Your task to perform on an android device: stop showing notifications on the lock screen Image 0: 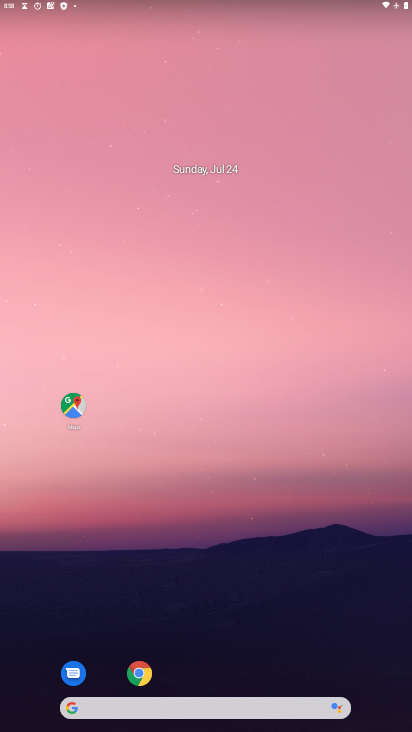
Step 0: drag from (204, 652) to (287, 303)
Your task to perform on an android device: stop showing notifications on the lock screen Image 1: 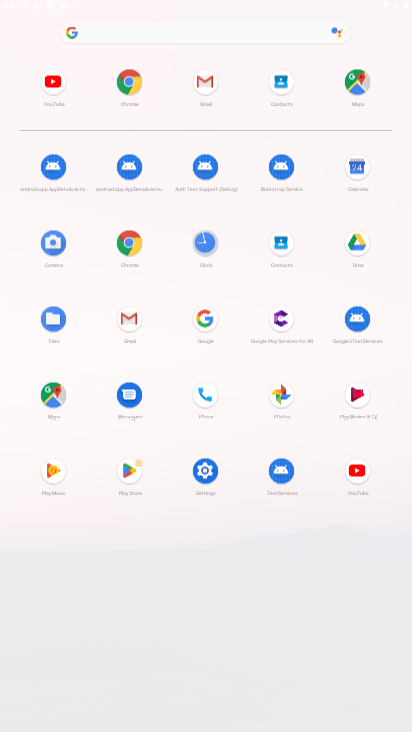
Step 1: drag from (195, 678) to (266, 86)
Your task to perform on an android device: stop showing notifications on the lock screen Image 2: 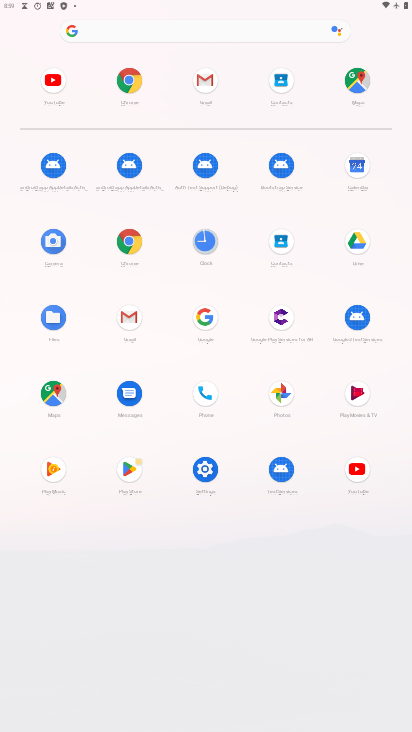
Step 2: click (201, 469)
Your task to perform on an android device: stop showing notifications on the lock screen Image 3: 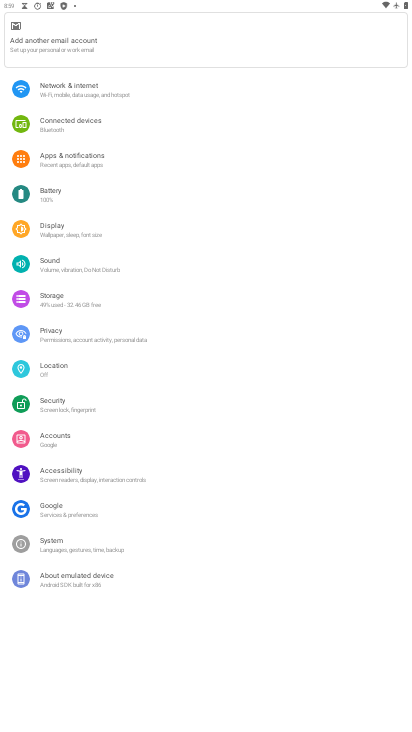
Step 3: click (69, 166)
Your task to perform on an android device: stop showing notifications on the lock screen Image 4: 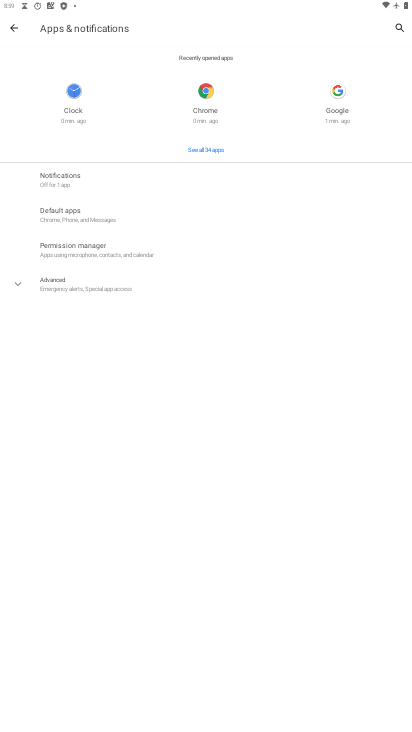
Step 4: click (92, 185)
Your task to perform on an android device: stop showing notifications on the lock screen Image 5: 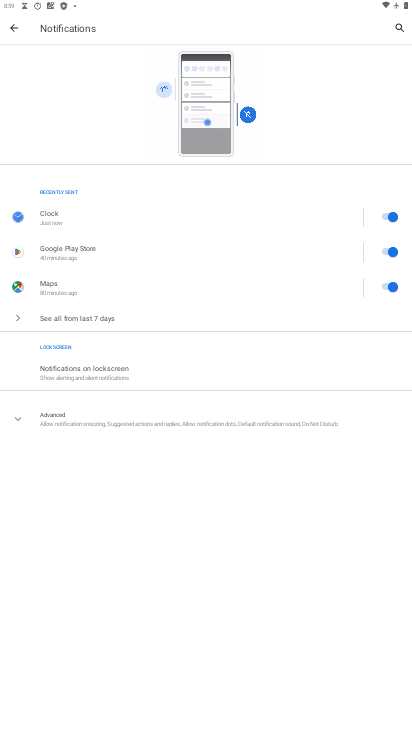
Step 5: click (140, 366)
Your task to perform on an android device: stop showing notifications on the lock screen Image 6: 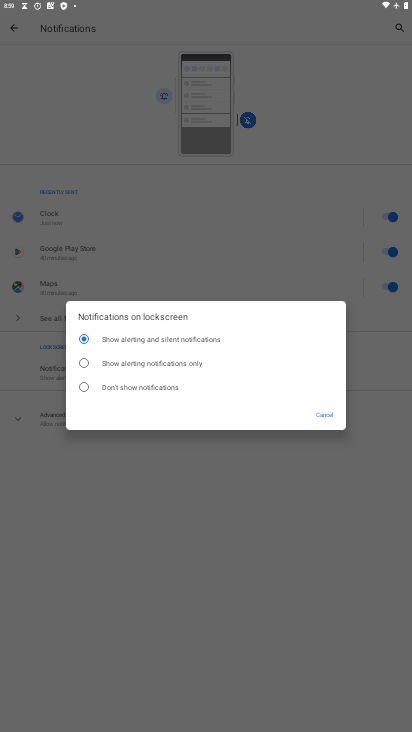
Step 6: drag from (174, 561) to (228, 175)
Your task to perform on an android device: stop showing notifications on the lock screen Image 7: 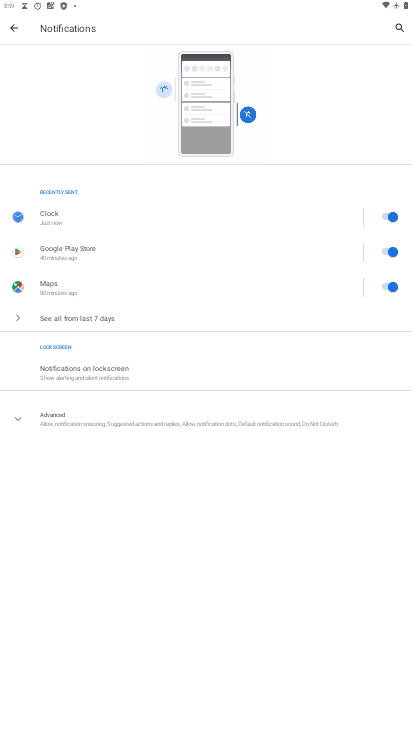
Step 7: click (91, 369)
Your task to perform on an android device: stop showing notifications on the lock screen Image 8: 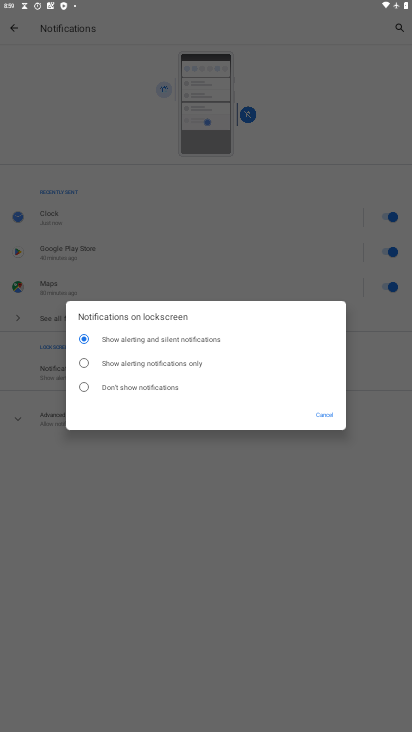
Step 8: click (97, 390)
Your task to perform on an android device: stop showing notifications on the lock screen Image 9: 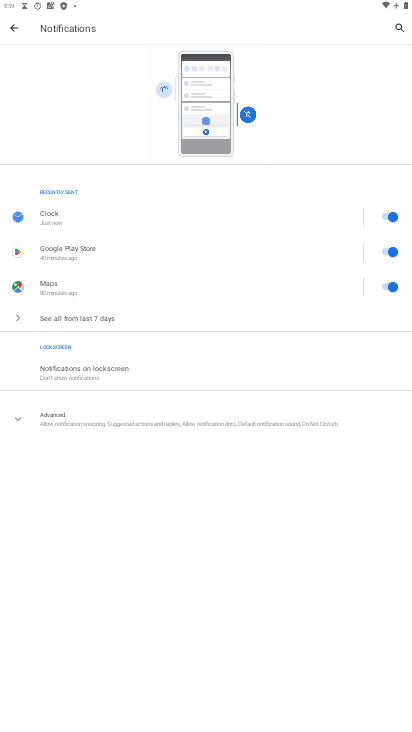
Step 9: task complete